Your task to perform on an android device: Open battery settings Image 0: 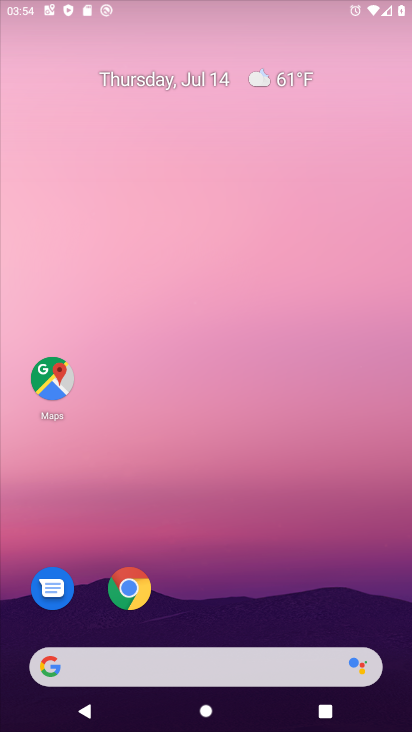
Step 0: press home button
Your task to perform on an android device: Open battery settings Image 1: 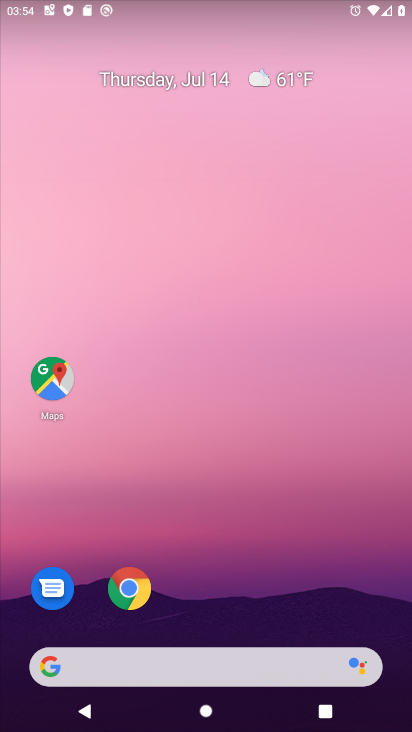
Step 1: press home button
Your task to perform on an android device: Open battery settings Image 2: 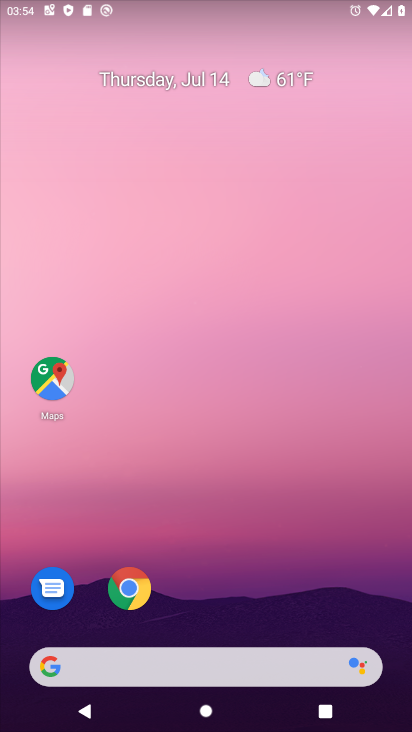
Step 2: drag from (321, 562) to (323, 64)
Your task to perform on an android device: Open battery settings Image 3: 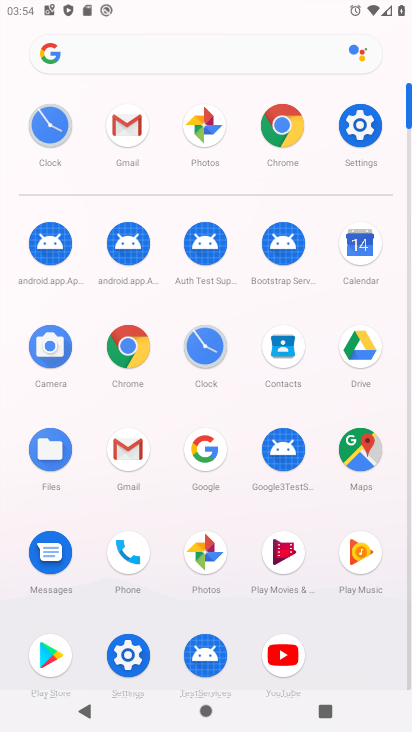
Step 3: click (353, 127)
Your task to perform on an android device: Open battery settings Image 4: 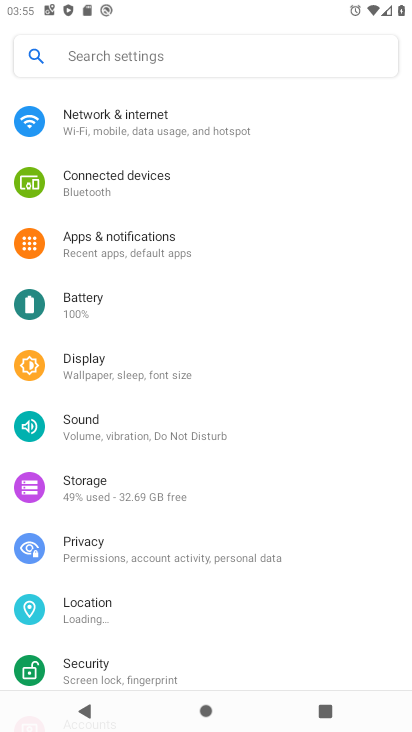
Step 4: click (88, 300)
Your task to perform on an android device: Open battery settings Image 5: 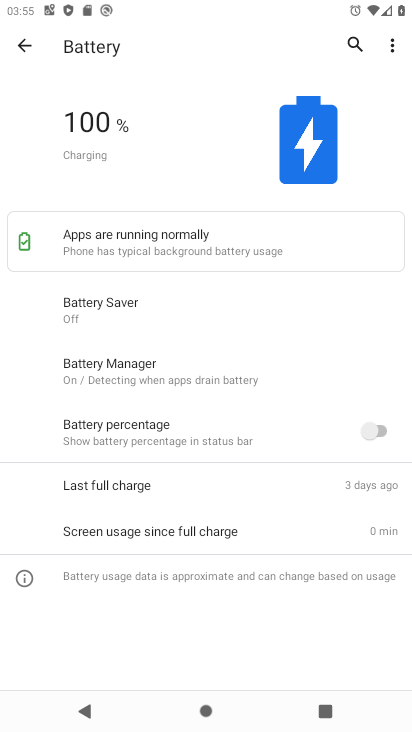
Step 5: task complete